Your task to perform on an android device: open a new tab in the chrome app Image 0: 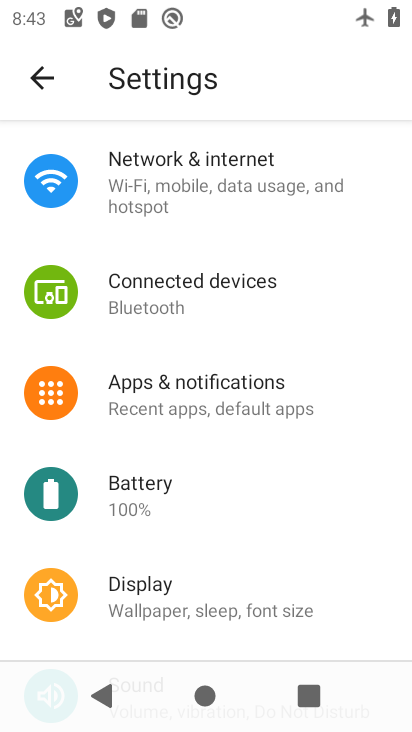
Step 0: press home button
Your task to perform on an android device: open a new tab in the chrome app Image 1: 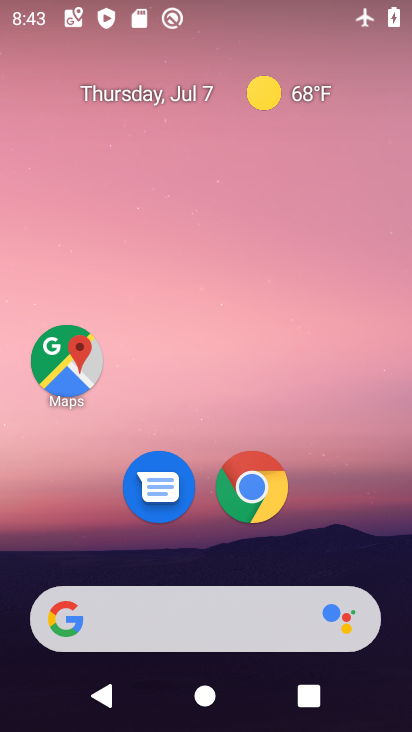
Step 1: click (253, 515)
Your task to perform on an android device: open a new tab in the chrome app Image 2: 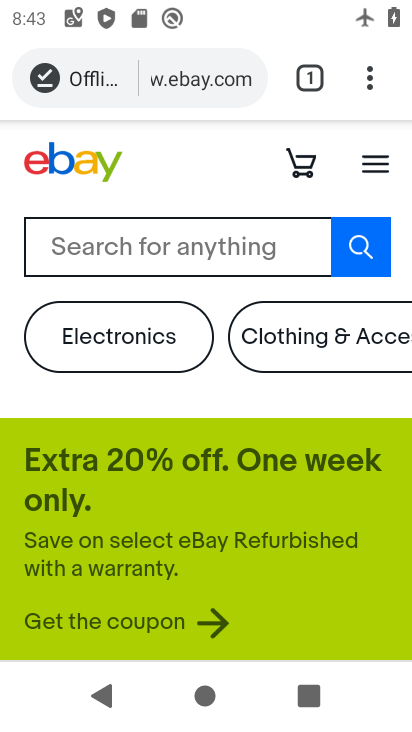
Step 2: click (318, 82)
Your task to perform on an android device: open a new tab in the chrome app Image 3: 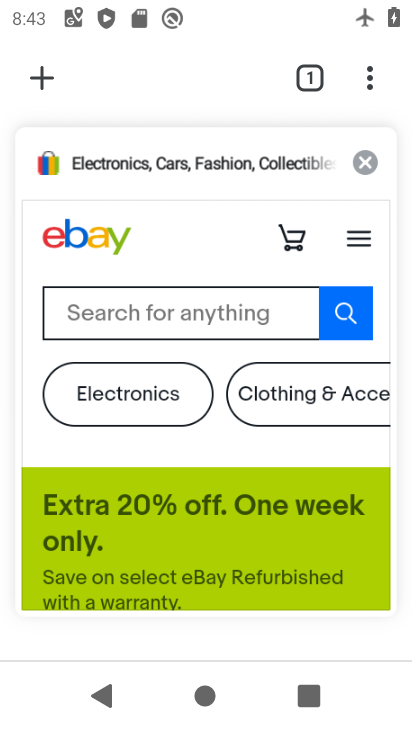
Step 3: click (49, 67)
Your task to perform on an android device: open a new tab in the chrome app Image 4: 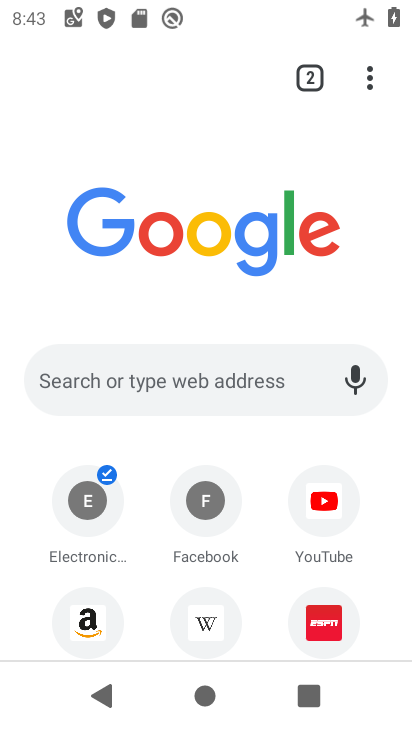
Step 4: task complete